Your task to perform on an android device: turn off smart reply in the gmail app Image 0: 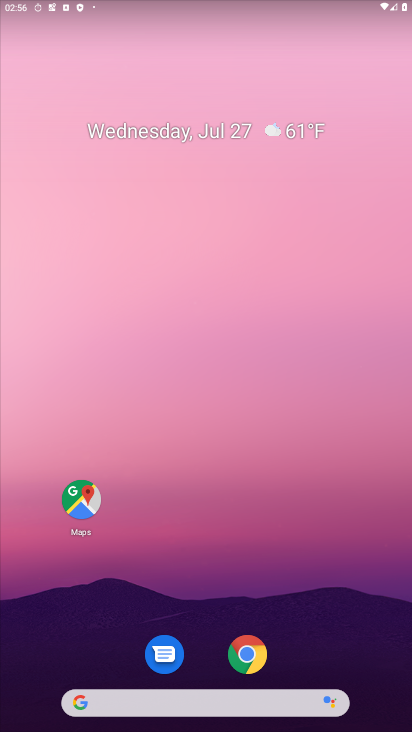
Step 0: drag from (261, 672) to (268, 73)
Your task to perform on an android device: turn off smart reply in the gmail app Image 1: 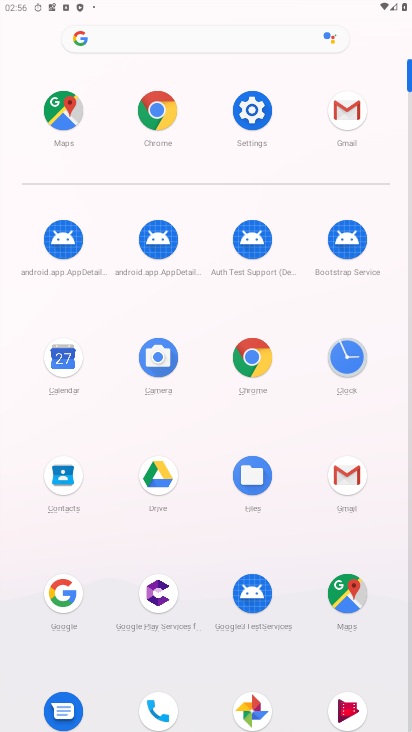
Step 1: press home button
Your task to perform on an android device: turn off smart reply in the gmail app Image 2: 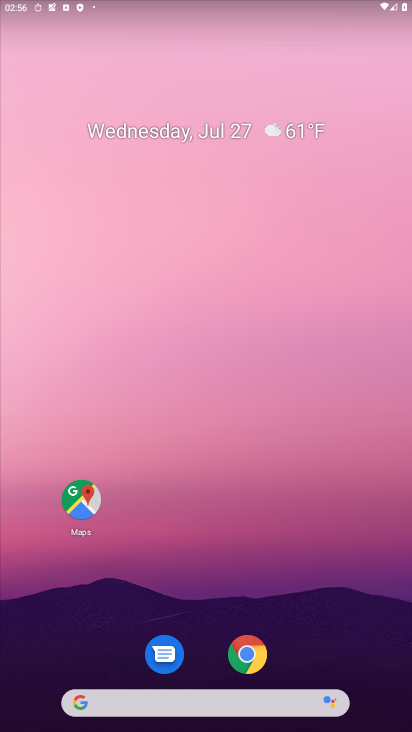
Step 2: drag from (329, 701) to (267, 82)
Your task to perform on an android device: turn off smart reply in the gmail app Image 3: 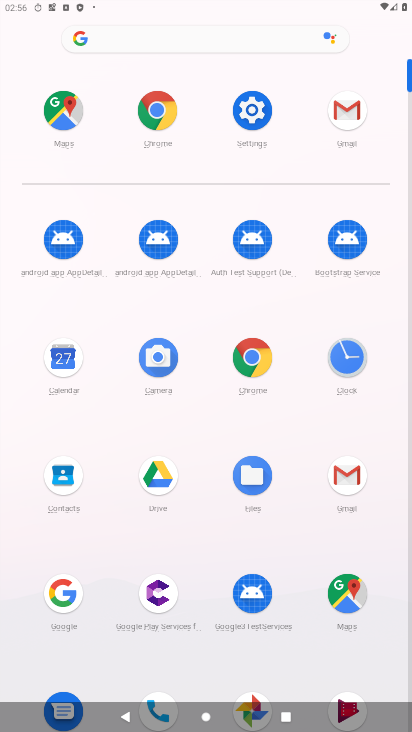
Step 3: click (358, 477)
Your task to perform on an android device: turn off smart reply in the gmail app Image 4: 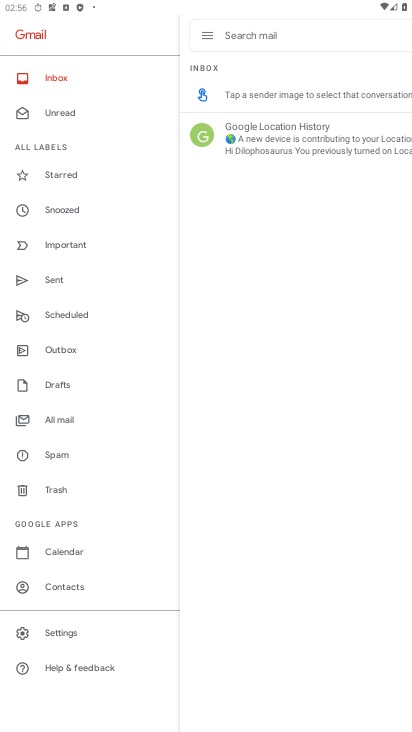
Step 4: click (66, 621)
Your task to perform on an android device: turn off smart reply in the gmail app Image 5: 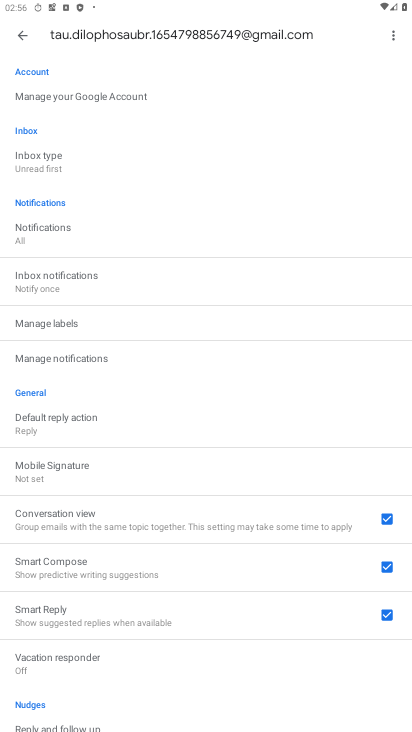
Step 5: click (42, 478)
Your task to perform on an android device: turn off smart reply in the gmail app Image 6: 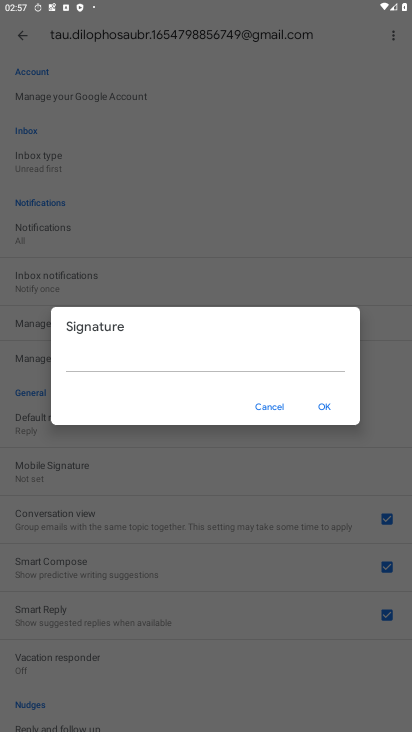
Step 6: click (274, 412)
Your task to perform on an android device: turn off smart reply in the gmail app Image 7: 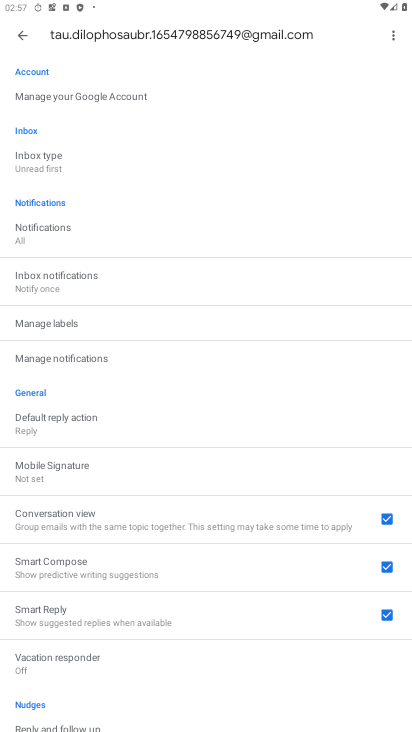
Step 7: click (78, 609)
Your task to perform on an android device: turn off smart reply in the gmail app Image 8: 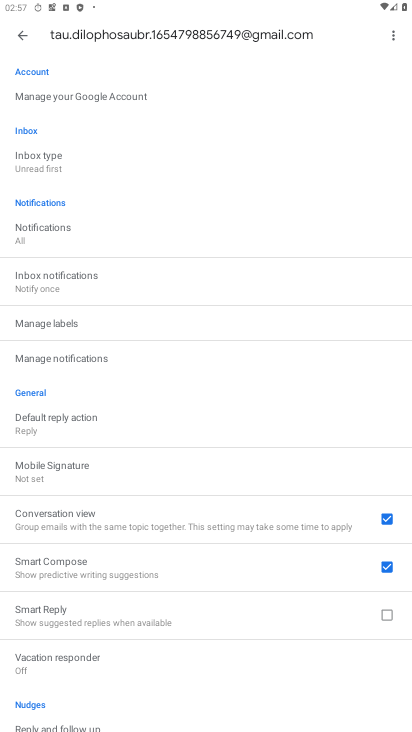
Step 8: task complete